Your task to perform on an android device: Search for nike dri-fit shirts on Nike Image 0: 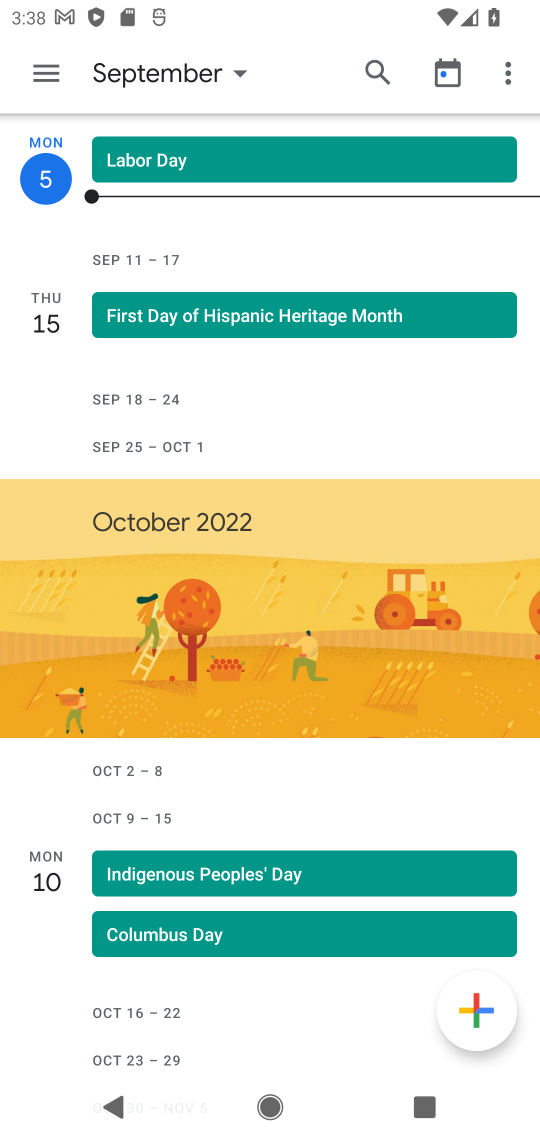
Step 0: press home button
Your task to perform on an android device: Search for nike dri-fit shirts on Nike Image 1: 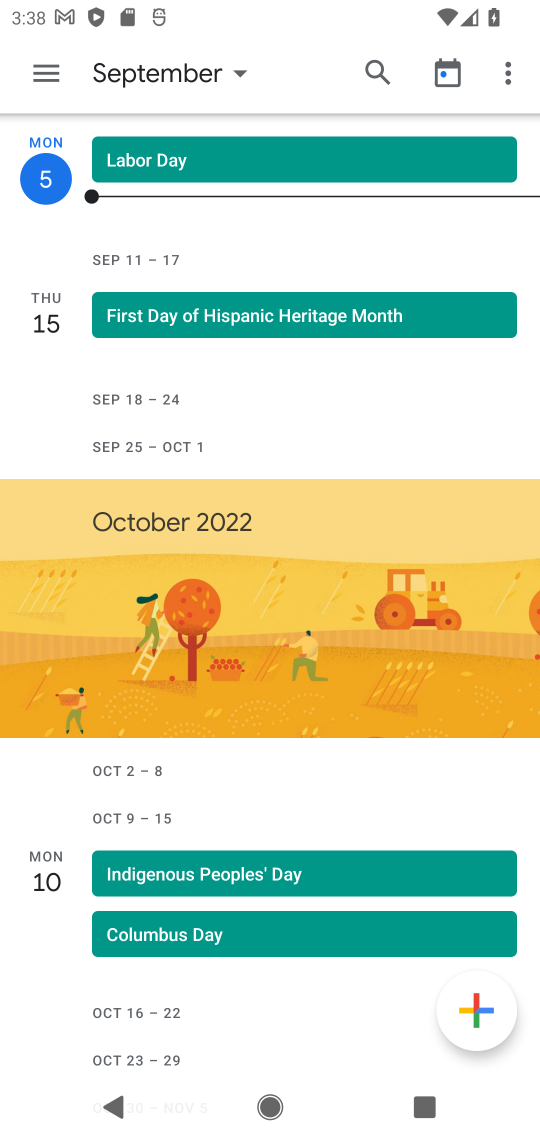
Step 1: press home button
Your task to perform on an android device: Search for nike dri-fit shirts on Nike Image 2: 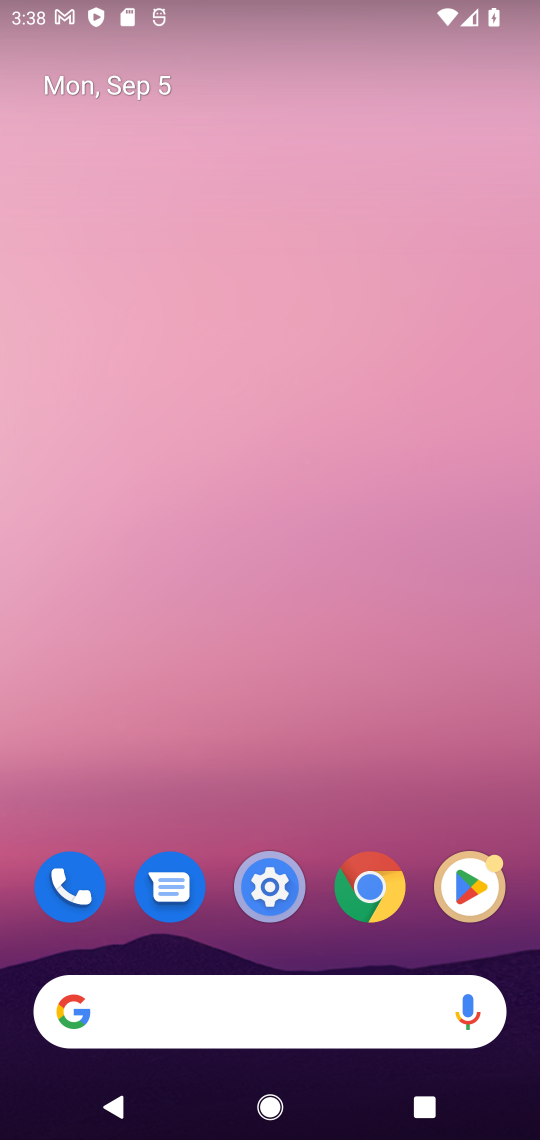
Step 2: drag from (354, 766) to (355, 23)
Your task to perform on an android device: Search for nike dri-fit shirts on Nike Image 3: 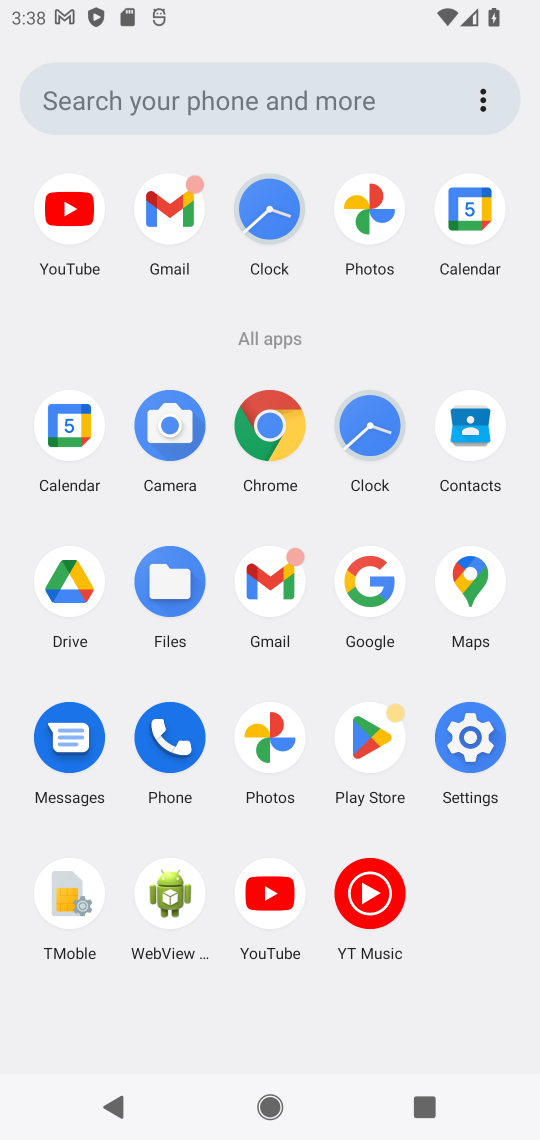
Step 3: click (269, 424)
Your task to perform on an android device: Search for nike dri-fit shirts on Nike Image 4: 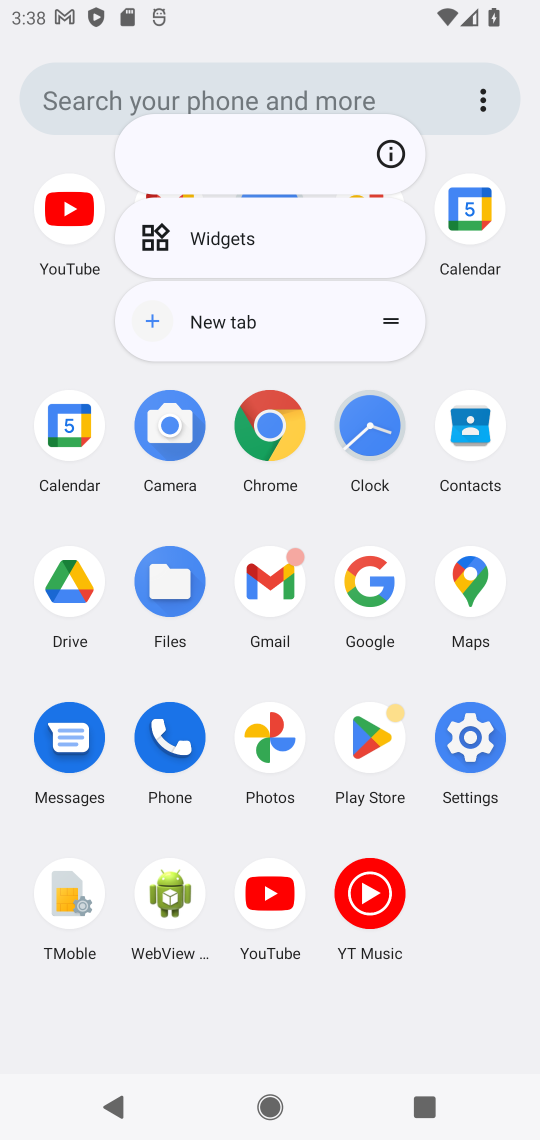
Step 4: click (260, 424)
Your task to perform on an android device: Search for nike dri-fit shirts on Nike Image 5: 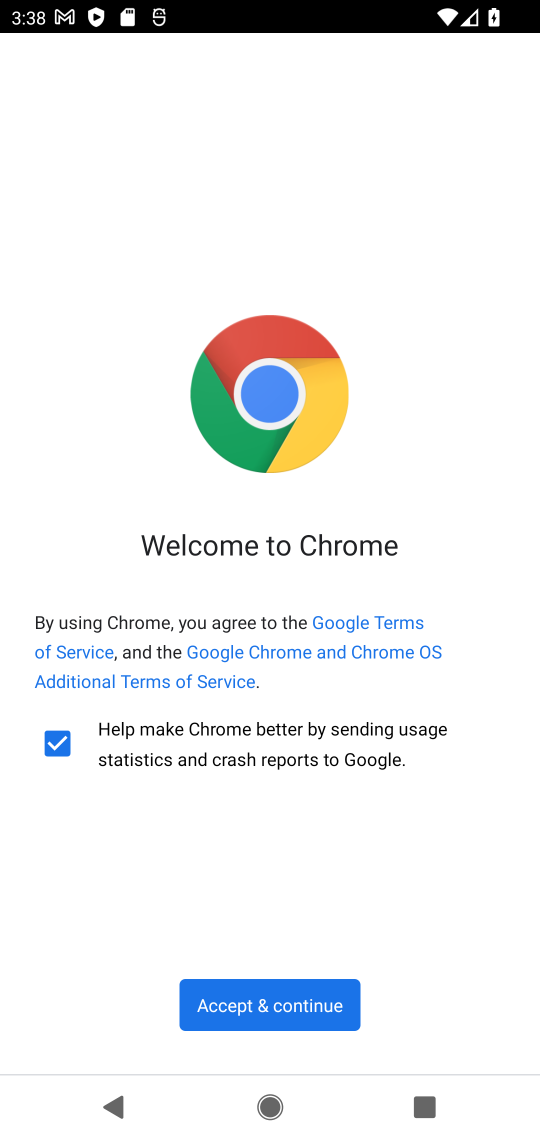
Step 5: click (332, 995)
Your task to perform on an android device: Search for nike dri-fit shirts on Nike Image 6: 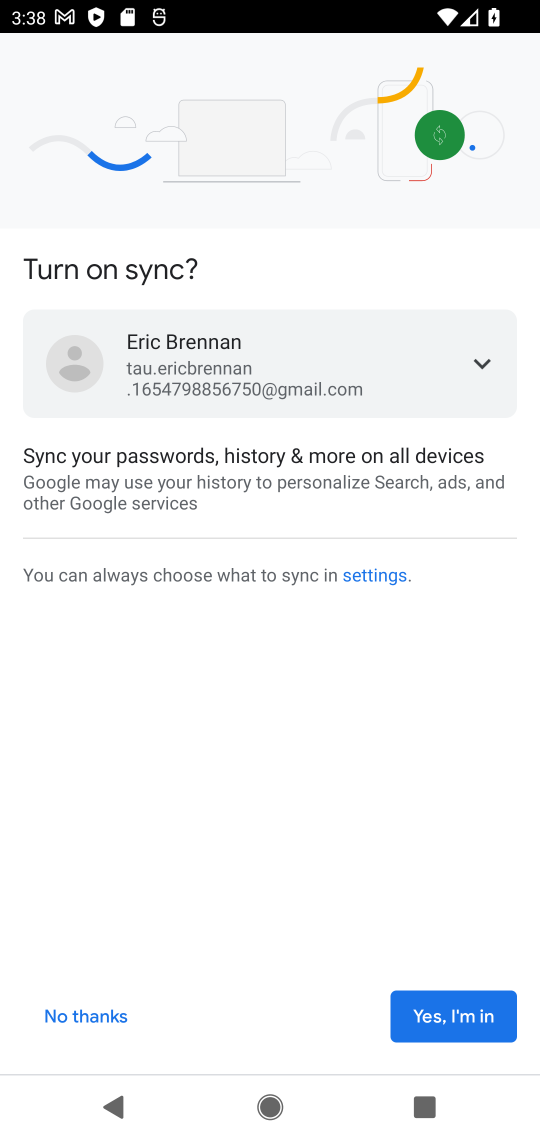
Step 6: click (523, 1003)
Your task to perform on an android device: Search for nike dri-fit shirts on Nike Image 7: 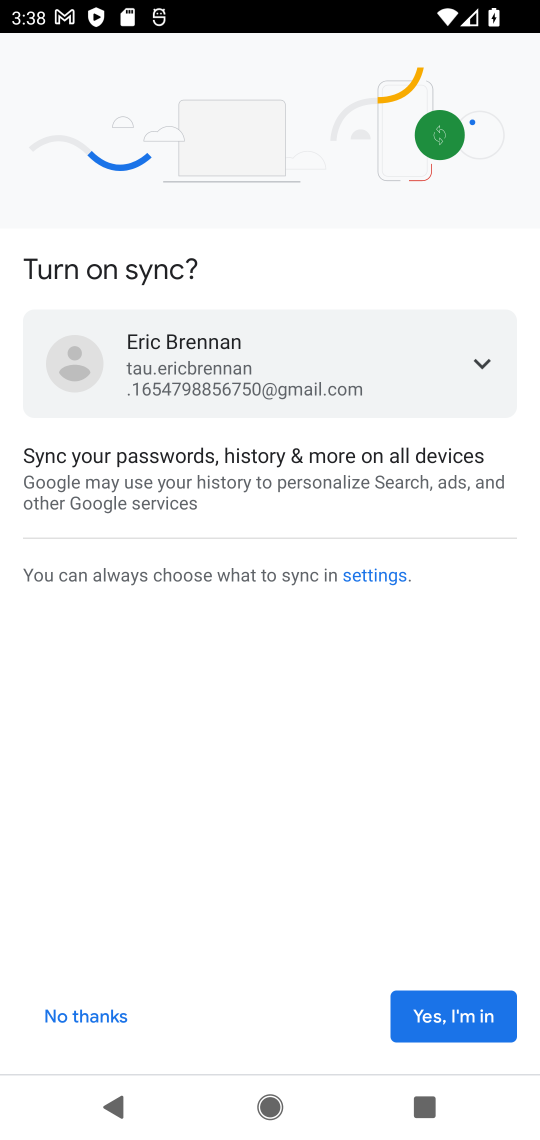
Step 7: click (444, 1001)
Your task to perform on an android device: Search for nike dri-fit shirts on Nike Image 8: 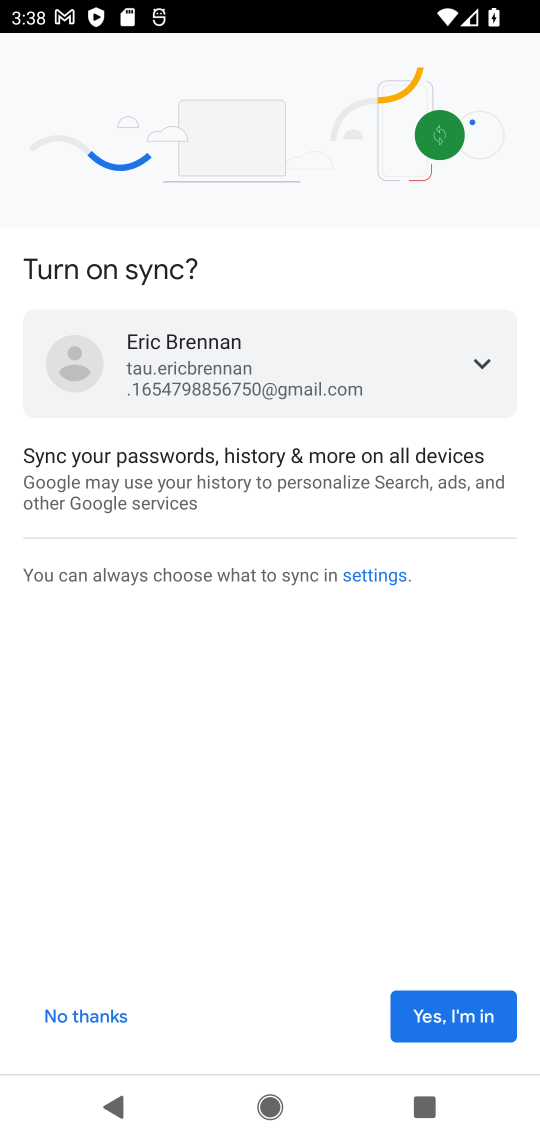
Step 8: click (446, 1007)
Your task to perform on an android device: Search for nike dri-fit shirts on Nike Image 9: 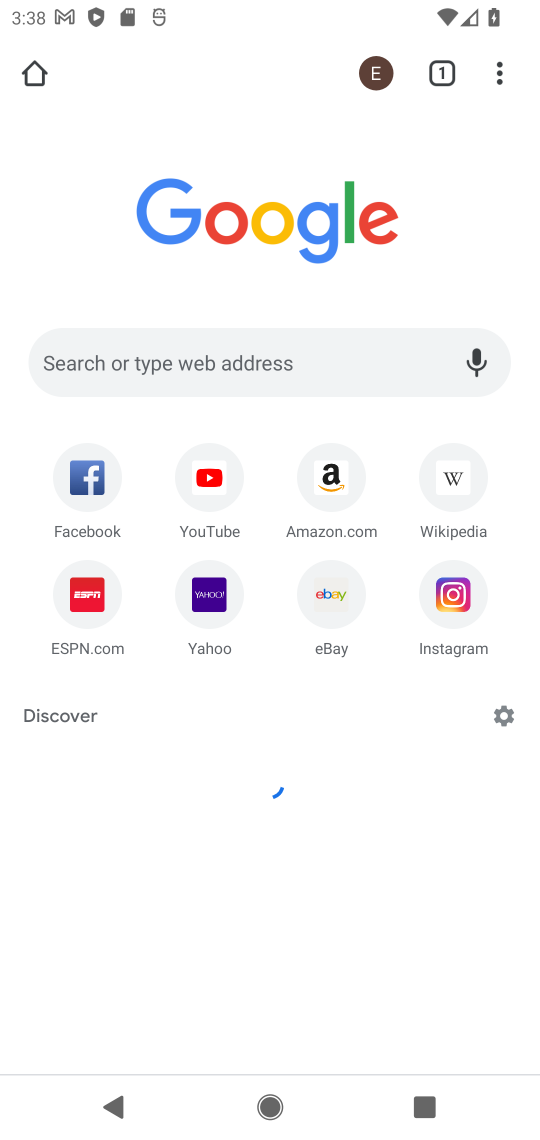
Step 9: click (346, 370)
Your task to perform on an android device: Search for nike dri-fit shirts on Nike Image 10: 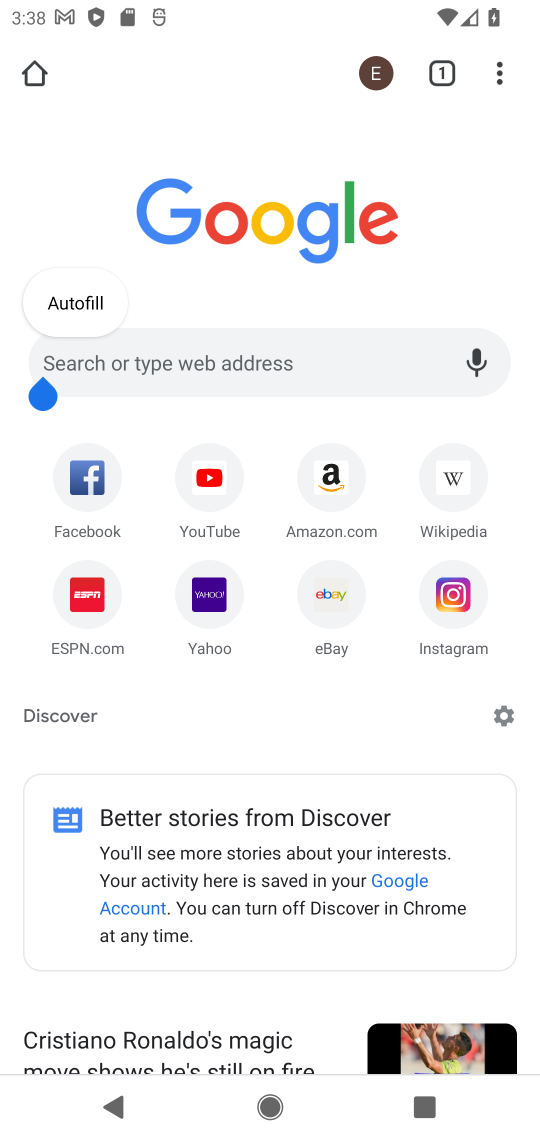
Step 10: click (222, 360)
Your task to perform on an android device: Search for nike dri-fit shirts on Nike Image 11: 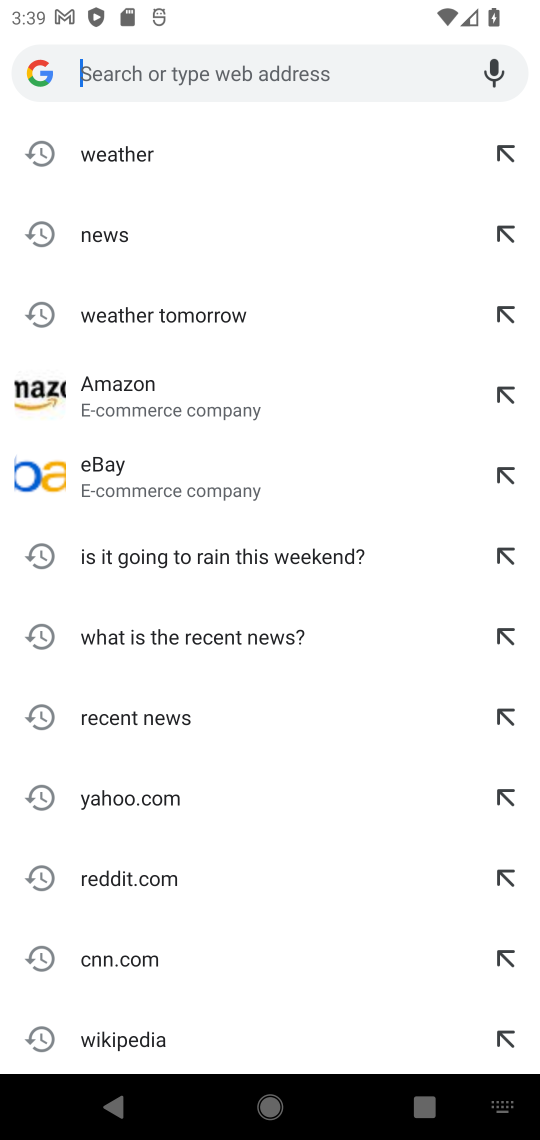
Step 11: type "nike dri-fit shirts on Nike"
Your task to perform on an android device: Search for nike dri-fit shirts on Nike Image 12: 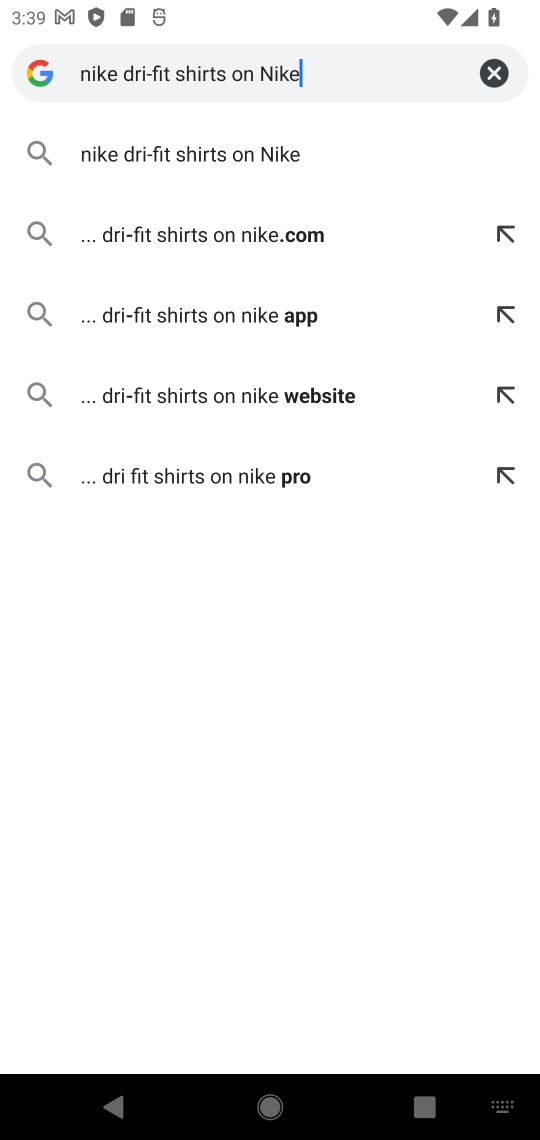
Step 12: press enter
Your task to perform on an android device: Search for nike dri-fit shirts on Nike Image 13: 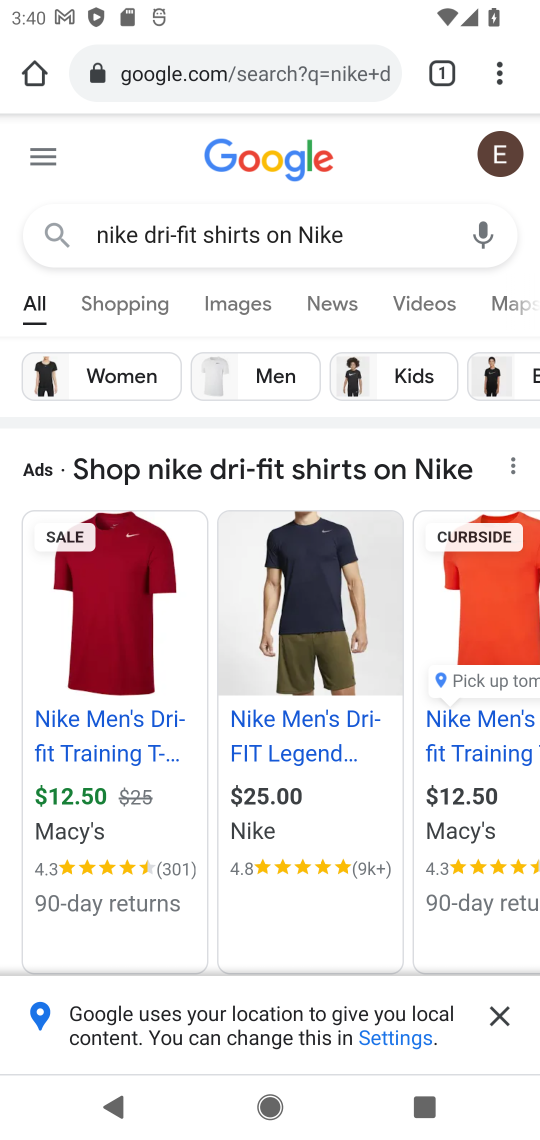
Step 13: drag from (349, 890) to (352, 0)
Your task to perform on an android device: Search for nike dri-fit shirts on Nike Image 14: 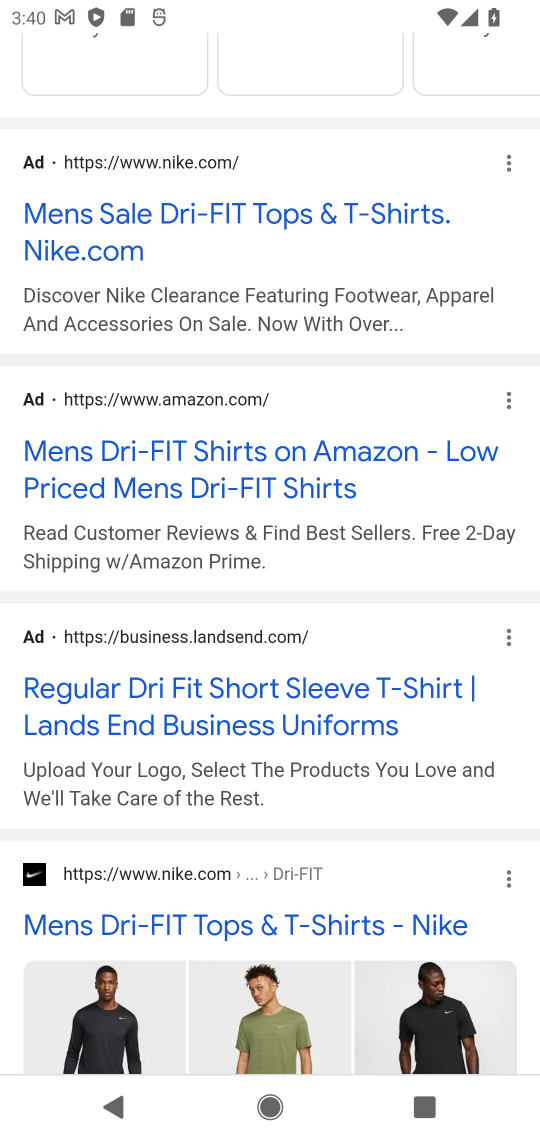
Step 14: click (209, 928)
Your task to perform on an android device: Search for nike dri-fit shirts on Nike Image 15: 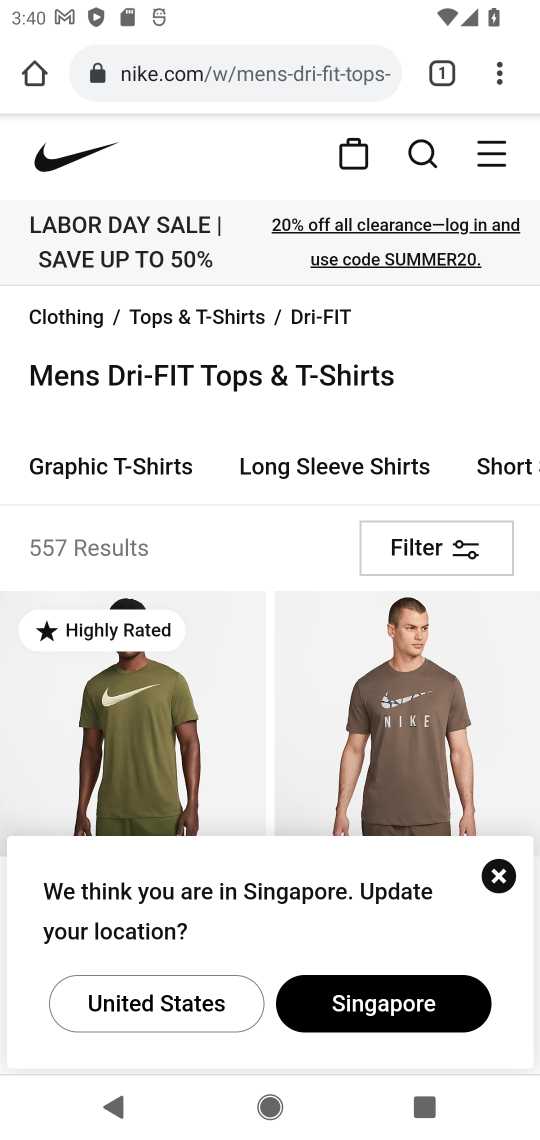
Step 15: task complete